Your task to perform on an android device: Show me popular games on the Play Store Image 0: 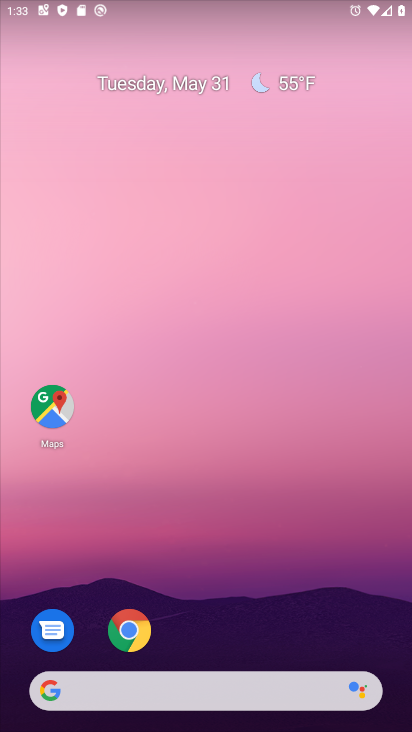
Step 0: drag from (239, 667) to (244, 96)
Your task to perform on an android device: Show me popular games on the Play Store Image 1: 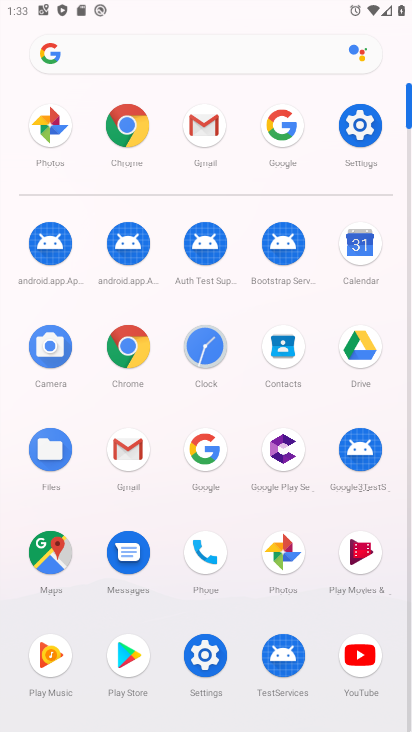
Step 1: click (130, 660)
Your task to perform on an android device: Show me popular games on the Play Store Image 2: 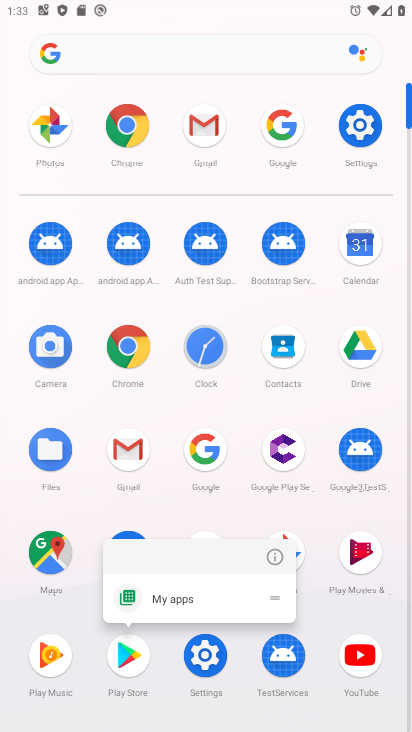
Step 2: click (138, 656)
Your task to perform on an android device: Show me popular games on the Play Store Image 3: 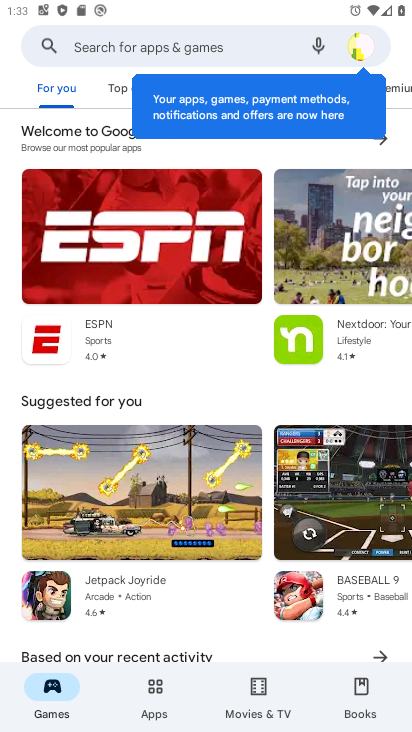
Step 3: click (133, 44)
Your task to perform on an android device: Show me popular games on the Play Store Image 4: 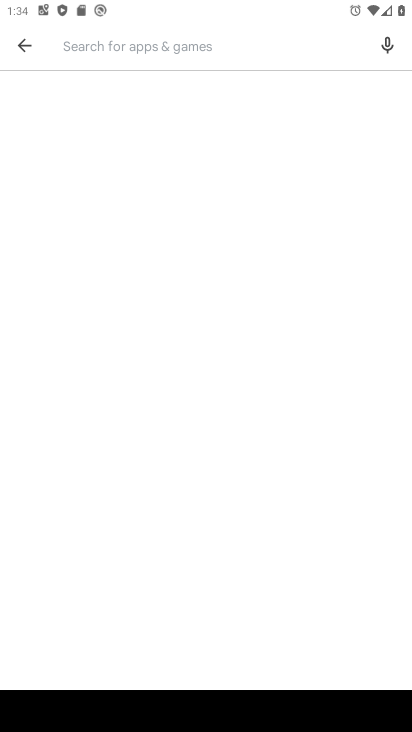
Step 4: type "popular games"
Your task to perform on an android device: Show me popular games on the Play Store Image 5: 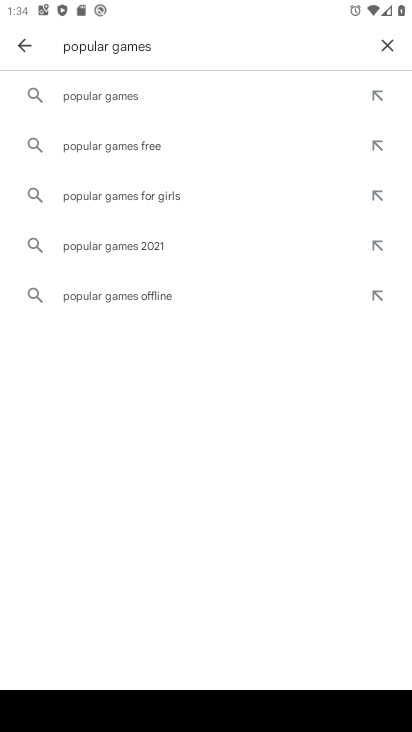
Step 5: click (124, 101)
Your task to perform on an android device: Show me popular games on the Play Store Image 6: 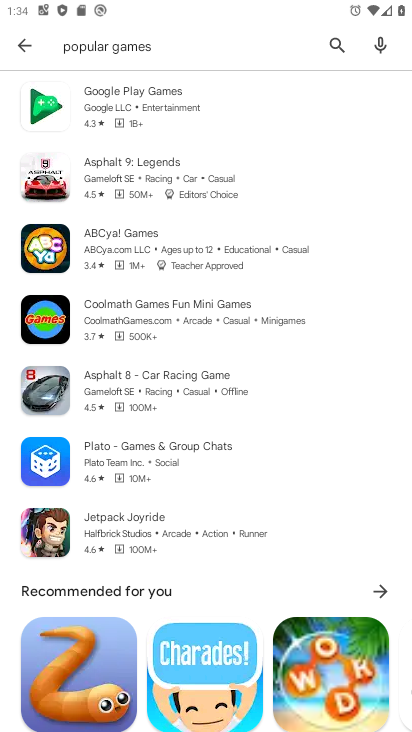
Step 6: task complete